Your task to perform on an android device: toggle airplane mode Image 0: 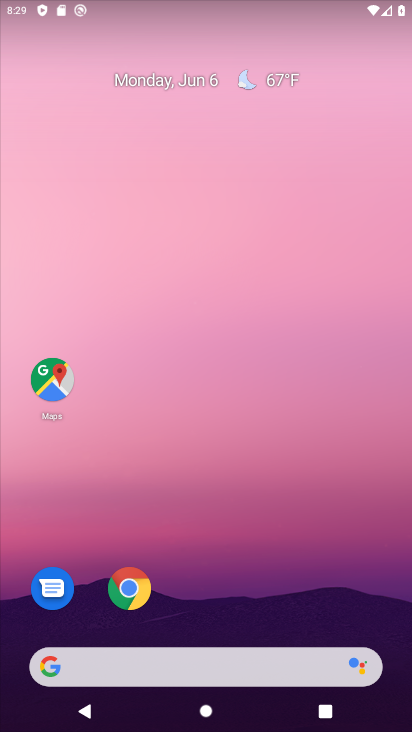
Step 0: drag from (319, 602) to (246, 69)
Your task to perform on an android device: toggle airplane mode Image 1: 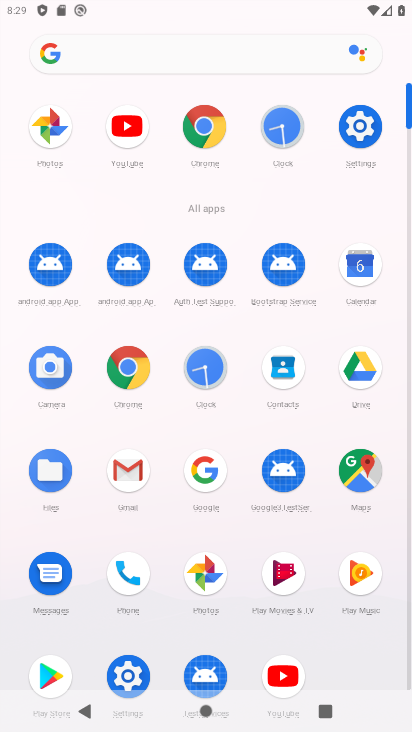
Step 1: click (358, 142)
Your task to perform on an android device: toggle airplane mode Image 2: 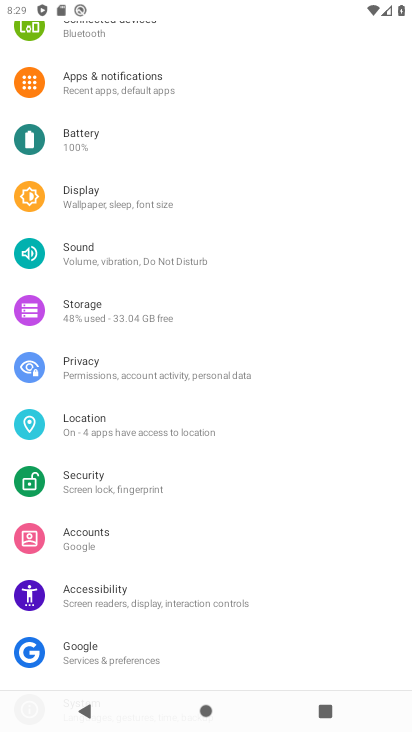
Step 2: drag from (189, 190) to (225, 699)
Your task to perform on an android device: toggle airplane mode Image 3: 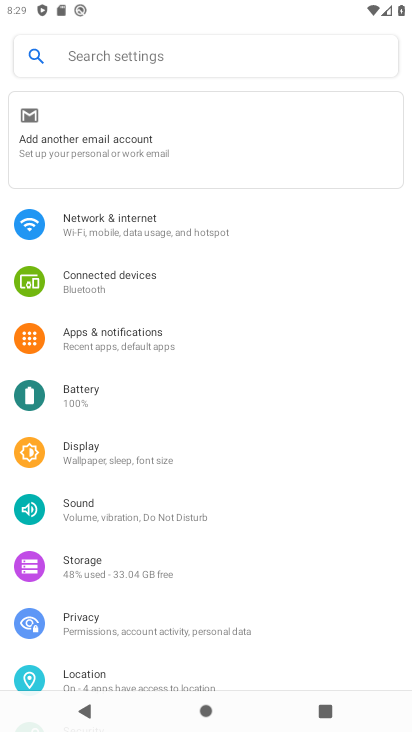
Step 3: click (92, 232)
Your task to perform on an android device: toggle airplane mode Image 4: 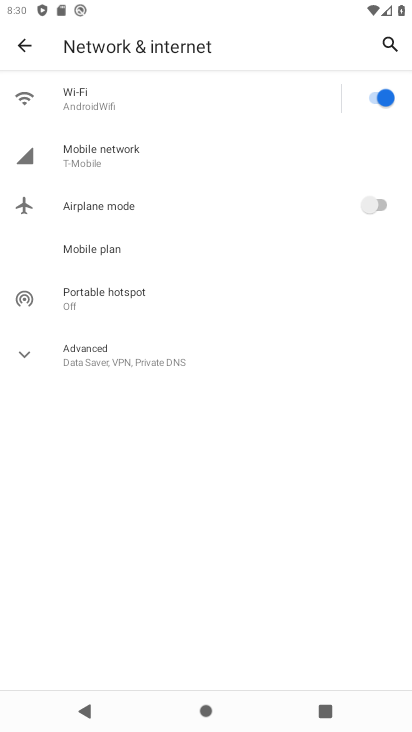
Step 4: click (114, 210)
Your task to perform on an android device: toggle airplane mode Image 5: 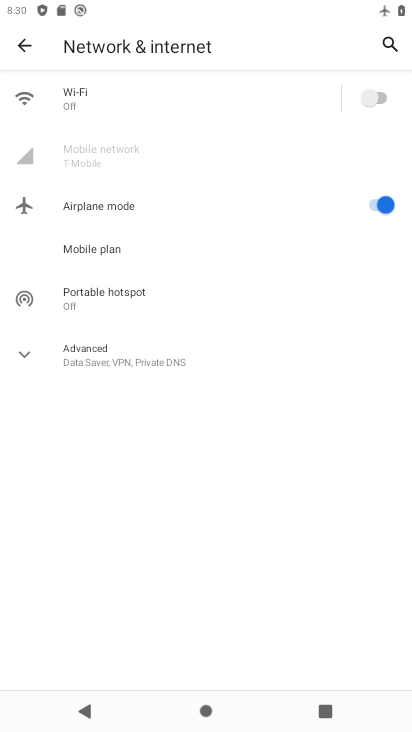
Step 5: task complete